Your task to perform on an android device: Open calendar and show me the third week of next month Image 0: 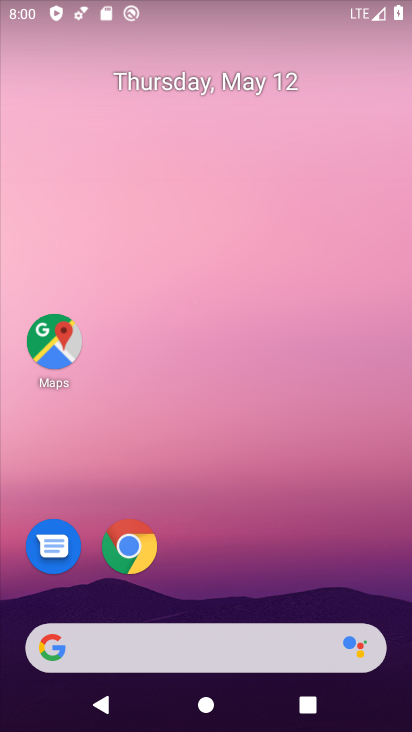
Step 0: drag from (242, 565) to (313, 9)
Your task to perform on an android device: Open calendar and show me the third week of next month Image 1: 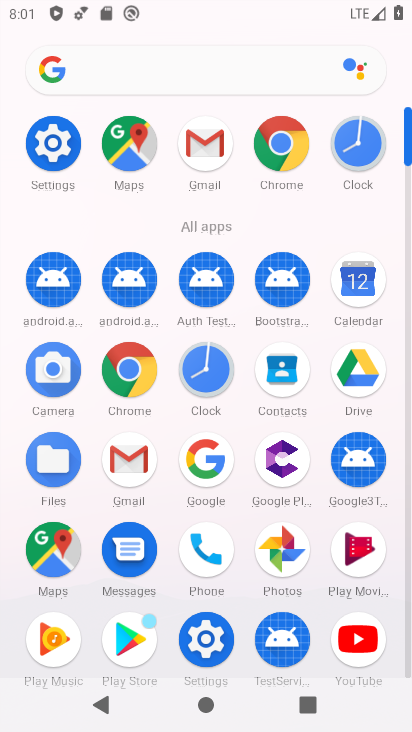
Step 1: click (350, 283)
Your task to perform on an android device: Open calendar and show me the third week of next month Image 2: 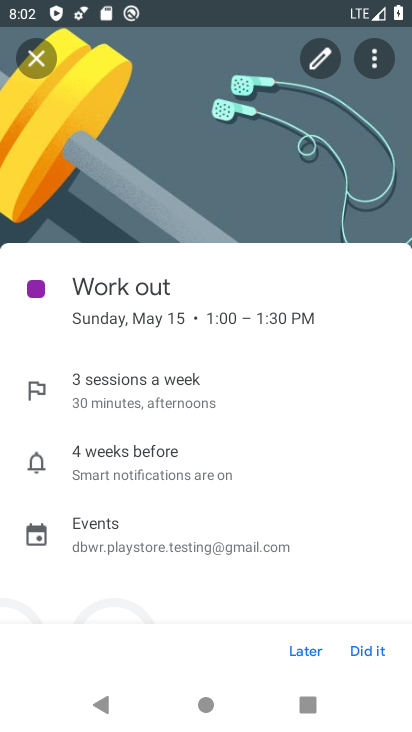
Step 2: click (305, 651)
Your task to perform on an android device: Open calendar and show me the third week of next month Image 3: 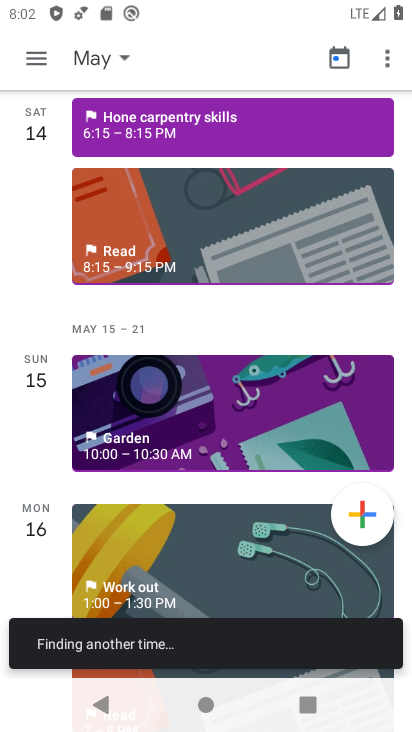
Step 3: click (104, 59)
Your task to perform on an android device: Open calendar and show me the third week of next month Image 4: 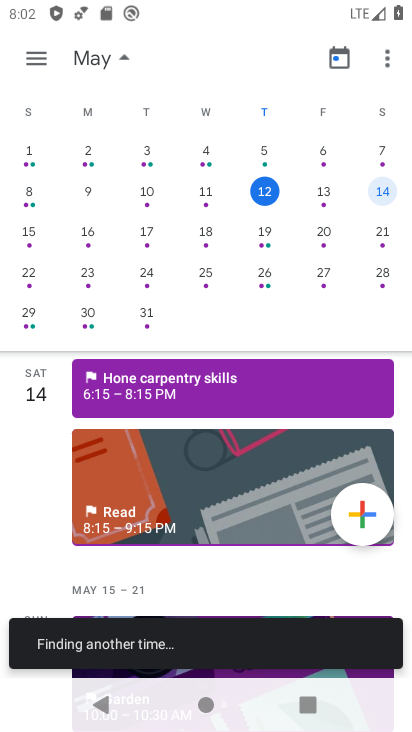
Step 4: drag from (361, 245) to (12, 53)
Your task to perform on an android device: Open calendar and show me the third week of next month Image 5: 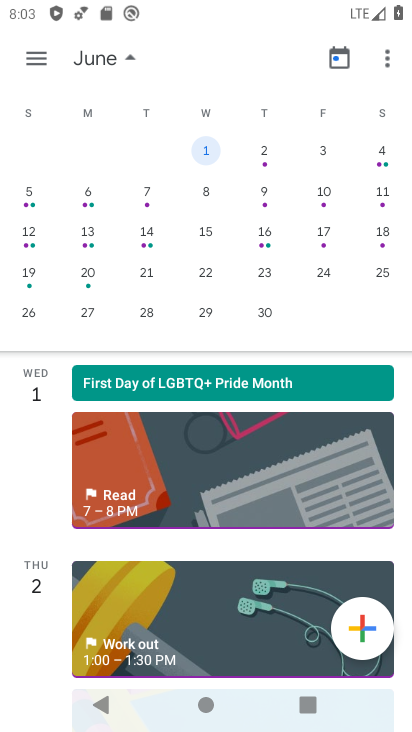
Step 5: click (121, 58)
Your task to perform on an android device: Open calendar and show me the third week of next month Image 6: 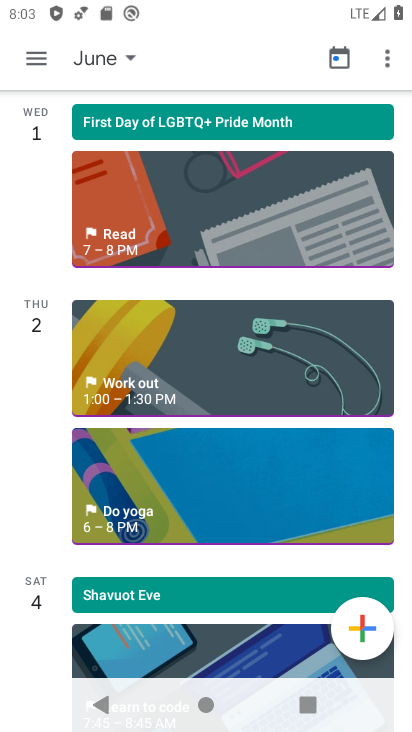
Step 6: click (121, 58)
Your task to perform on an android device: Open calendar and show me the third week of next month Image 7: 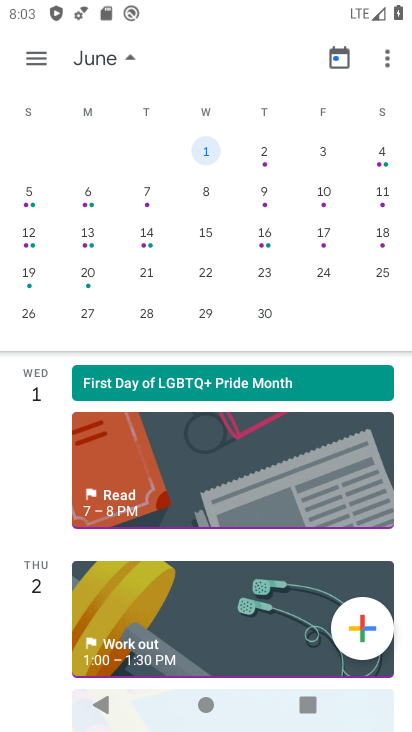
Step 7: click (91, 235)
Your task to perform on an android device: Open calendar and show me the third week of next month Image 8: 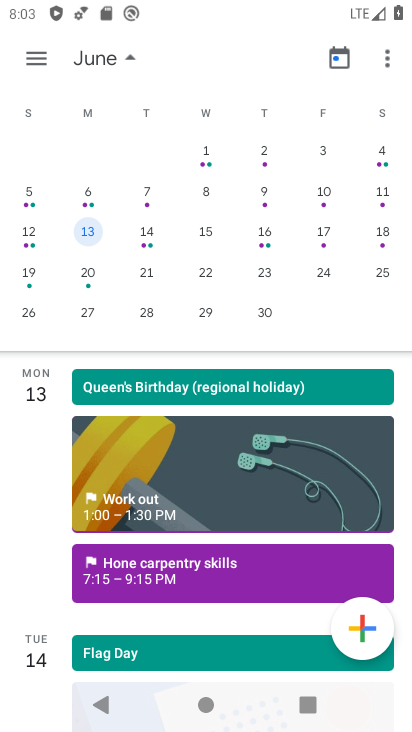
Step 8: task complete